Your task to perform on an android device: Is it going to rain this weekend? Image 0: 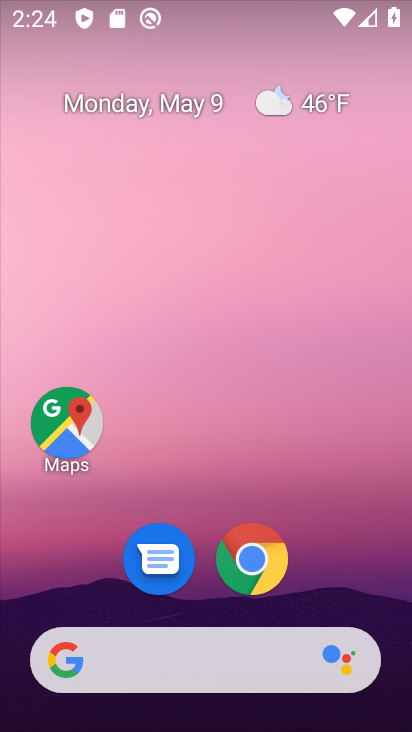
Step 0: drag from (314, 572) to (311, 198)
Your task to perform on an android device: Is it going to rain this weekend? Image 1: 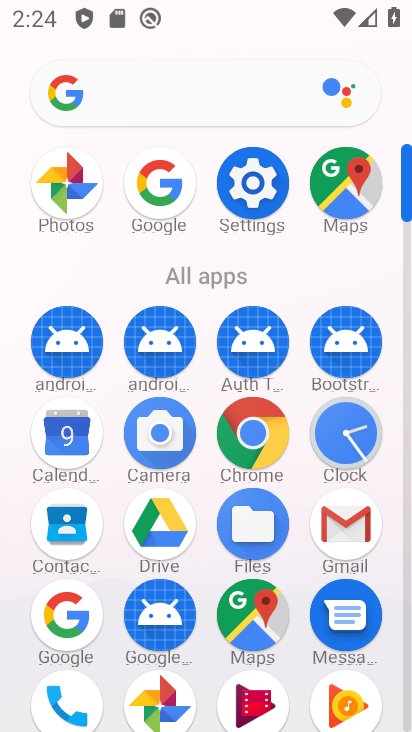
Step 1: click (174, 185)
Your task to perform on an android device: Is it going to rain this weekend? Image 2: 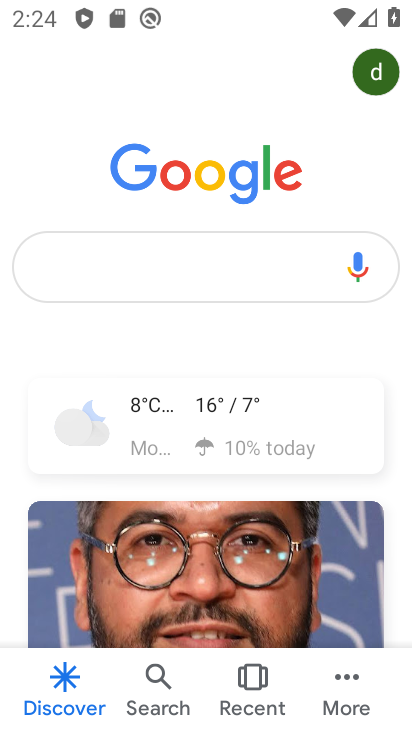
Step 2: task complete